Your task to perform on an android device: turn off priority inbox in the gmail app Image 0: 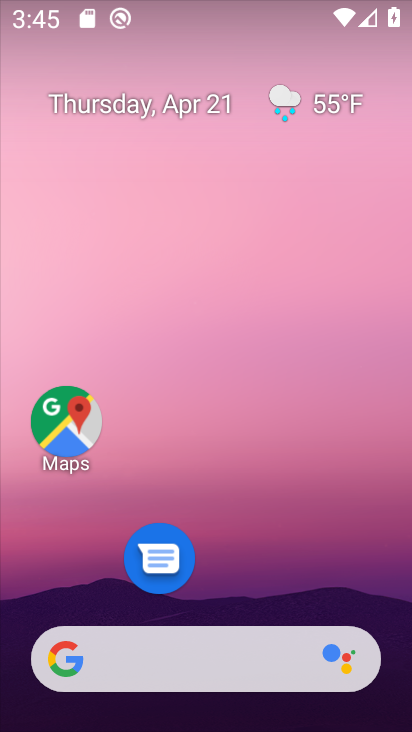
Step 0: click (261, 251)
Your task to perform on an android device: turn off priority inbox in the gmail app Image 1: 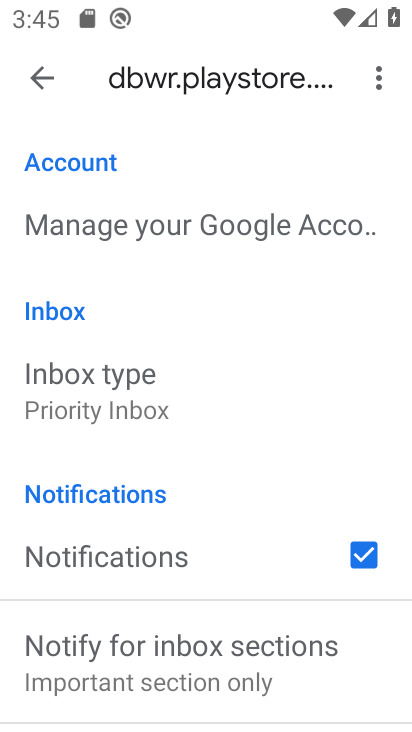
Step 1: click (265, 399)
Your task to perform on an android device: turn off priority inbox in the gmail app Image 2: 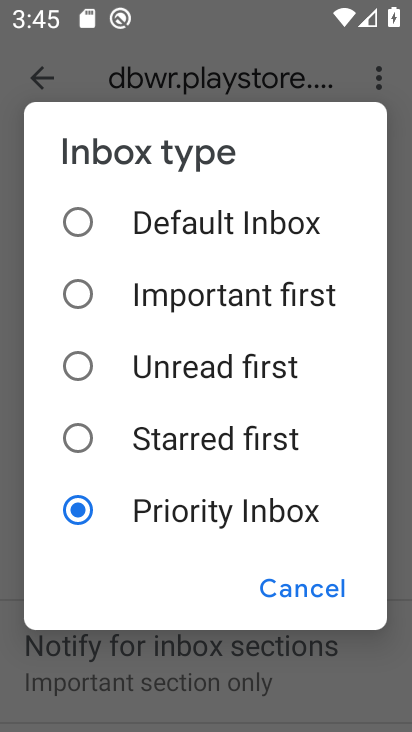
Step 2: click (212, 220)
Your task to perform on an android device: turn off priority inbox in the gmail app Image 3: 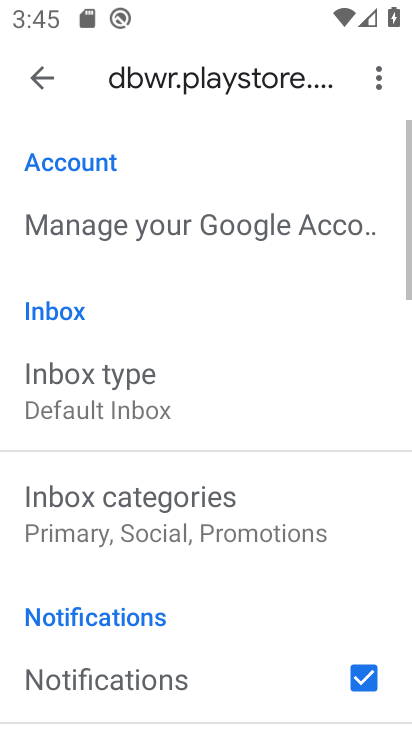
Step 3: task complete